Your task to perform on an android device: Show me the alarms in the clock app Image 0: 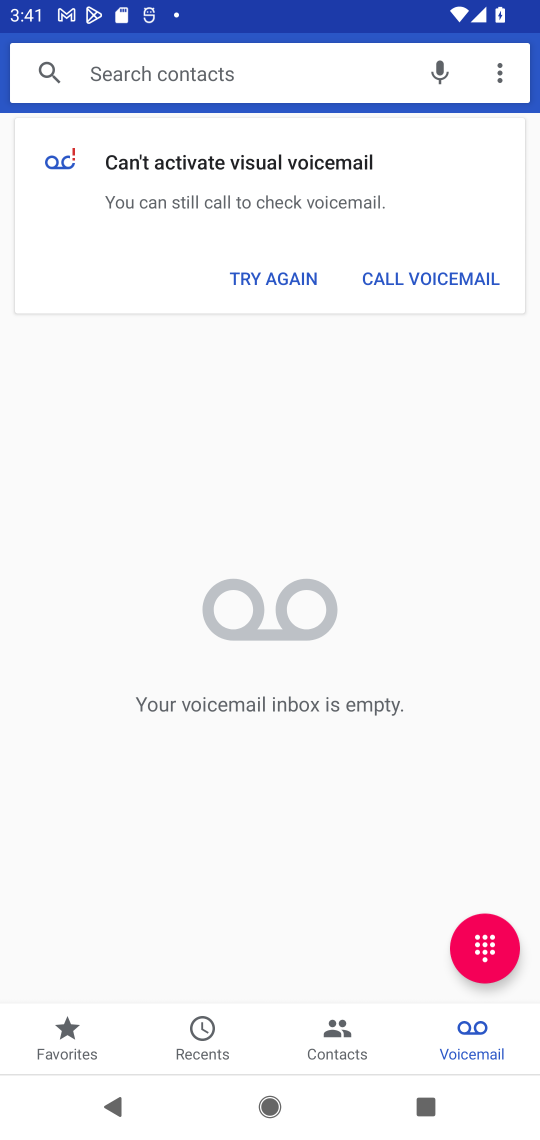
Step 0: press home button
Your task to perform on an android device: Show me the alarms in the clock app Image 1: 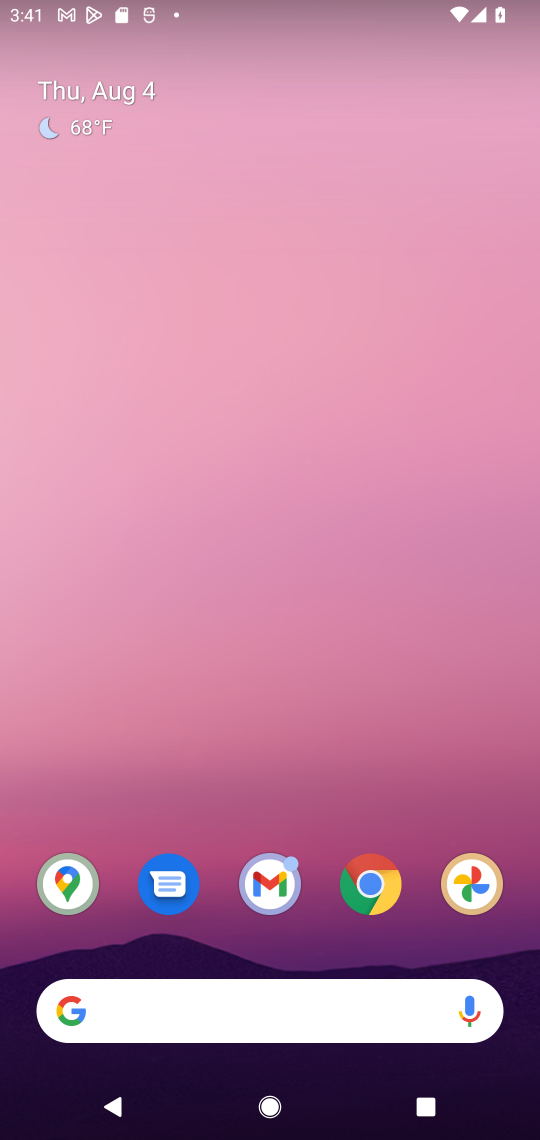
Step 1: drag from (313, 959) to (370, 126)
Your task to perform on an android device: Show me the alarms in the clock app Image 2: 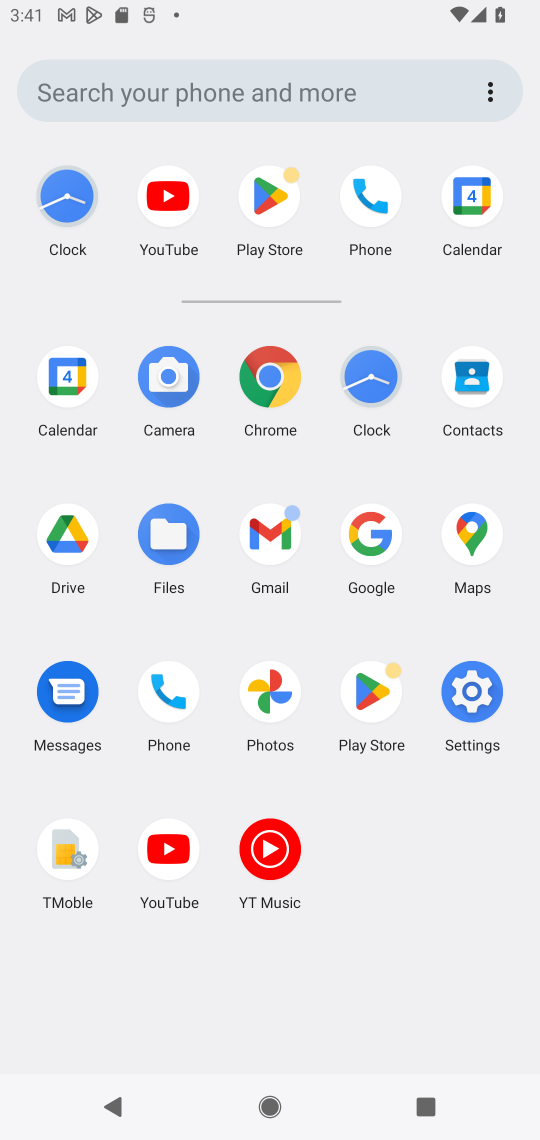
Step 2: click (368, 400)
Your task to perform on an android device: Show me the alarms in the clock app Image 3: 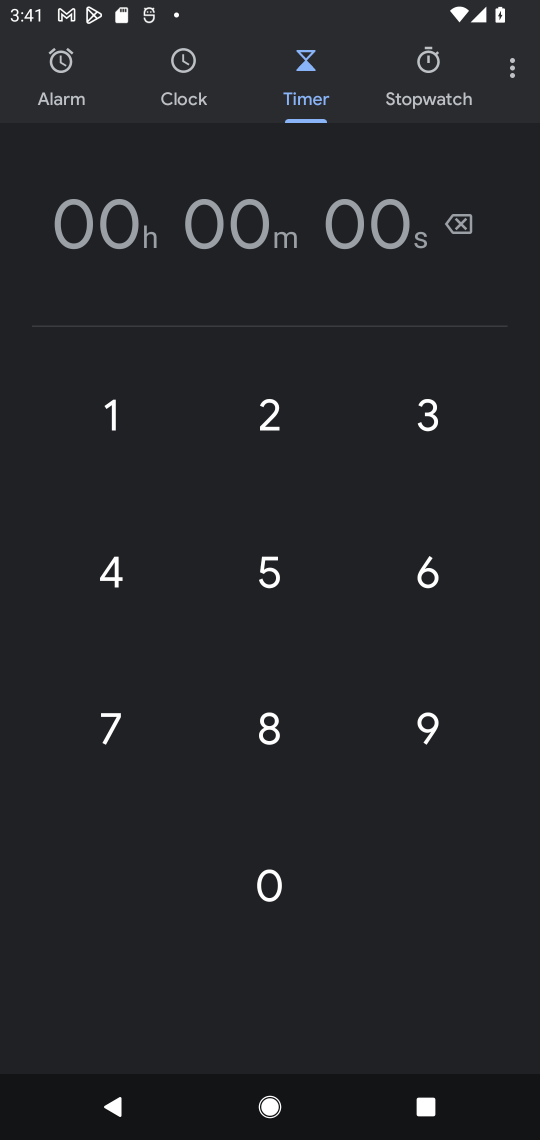
Step 3: task complete